Your task to perform on an android device: turn off notifications settings in the gmail app Image 0: 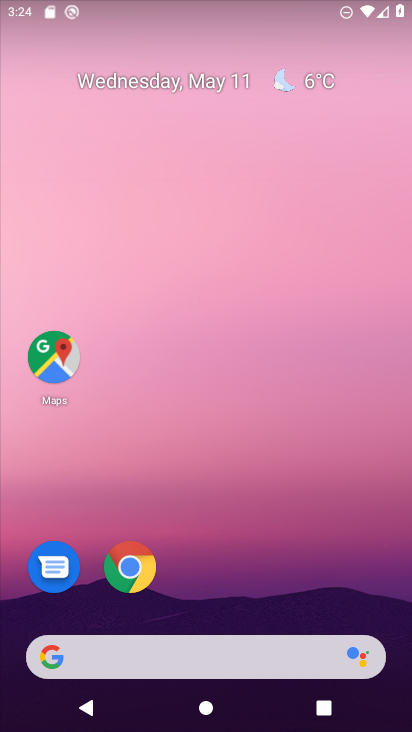
Step 0: drag from (292, 563) to (208, 125)
Your task to perform on an android device: turn off notifications settings in the gmail app Image 1: 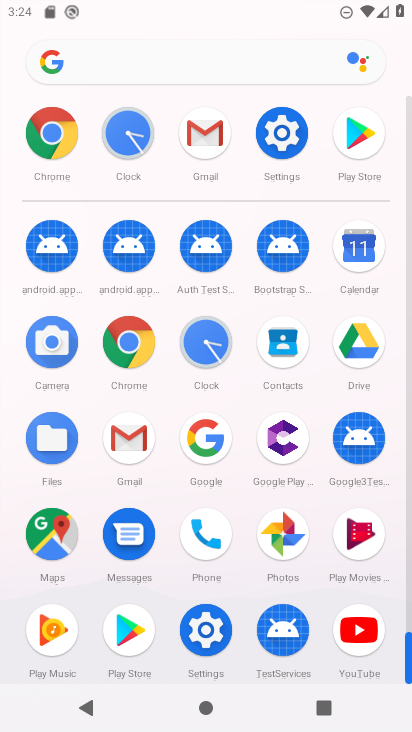
Step 1: click (134, 447)
Your task to perform on an android device: turn off notifications settings in the gmail app Image 2: 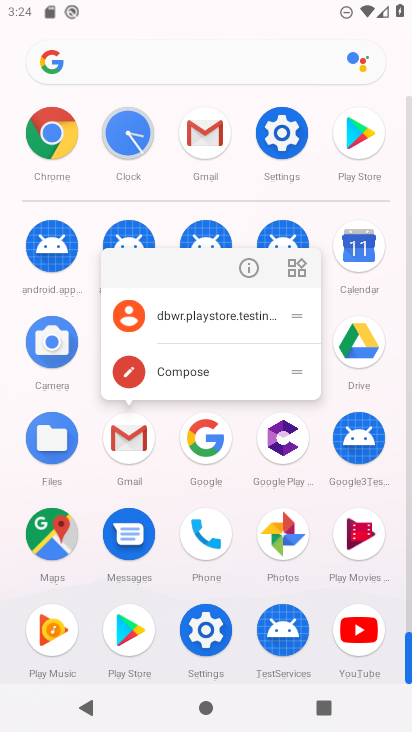
Step 2: click (240, 270)
Your task to perform on an android device: turn off notifications settings in the gmail app Image 3: 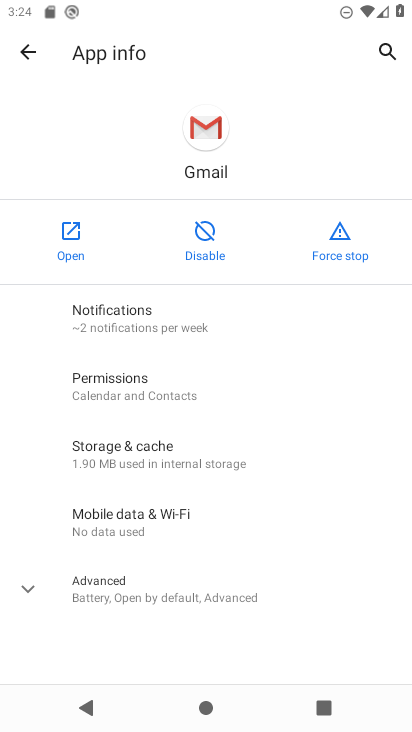
Step 3: click (151, 312)
Your task to perform on an android device: turn off notifications settings in the gmail app Image 4: 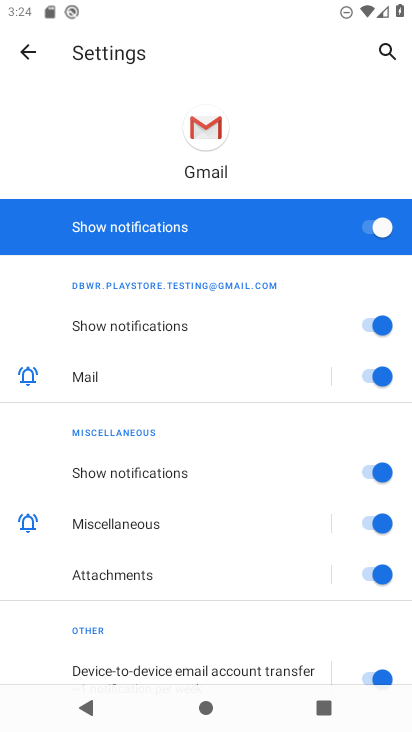
Step 4: click (371, 232)
Your task to perform on an android device: turn off notifications settings in the gmail app Image 5: 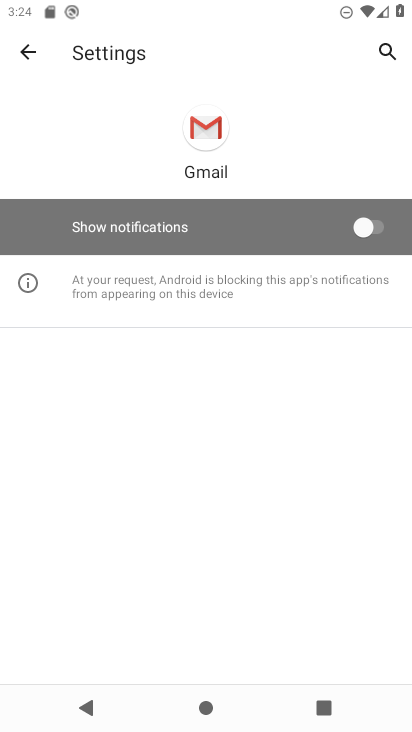
Step 5: task complete